Your task to perform on an android device: uninstall "Google Play Music" Image 0: 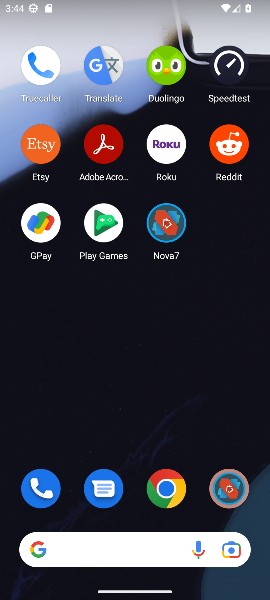
Step 0: drag from (129, 519) to (151, 12)
Your task to perform on an android device: uninstall "Google Play Music" Image 1: 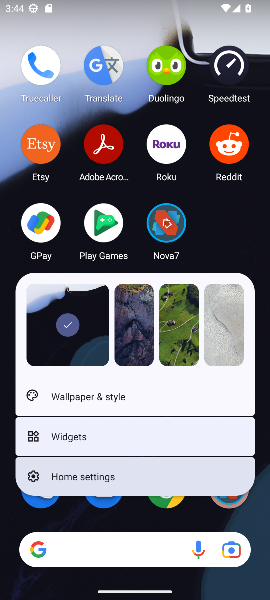
Step 1: click (223, 202)
Your task to perform on an android device: uninstall "Google Play Music" Image 2: 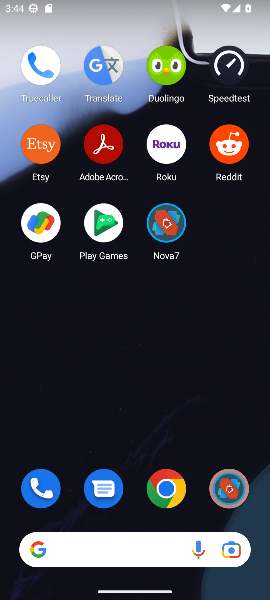
Step 2: drag from (140, 517) to (143, 81)
Your task to perform on an android device: uninstall "Google Play Music" Image 3: 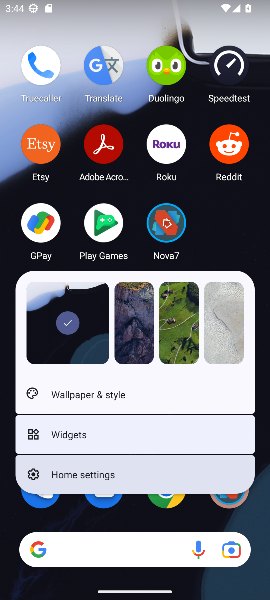
Step 3: click (212, 208)
Your task to perform on an android device: uninstall "Google Play Music" Image 4: 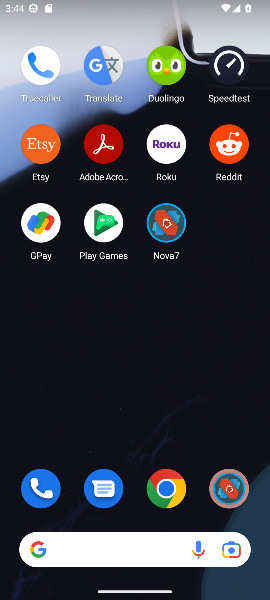
Step 4: drag from (134, 510) to (163, 47)
Your task to perform on an android device: uninstall "Google Play Music" Image 5: 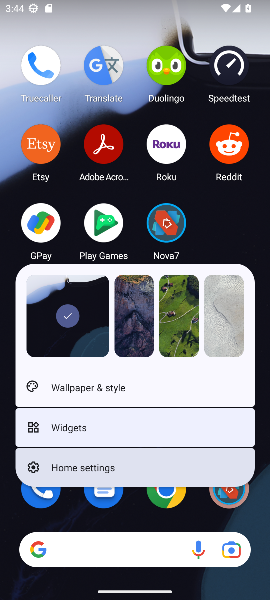
Step 5: click (212, 215)
Your task to perform on an android device: uninstall "Google Play Music" Image 6: 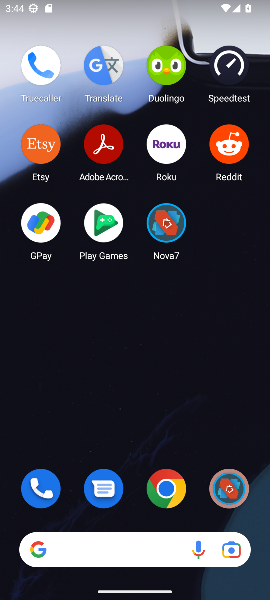
Step 6: drag from (145, 526) to (168, 140)
Your task to perform on an android device: uninstall "Google Play Music" Image 7: 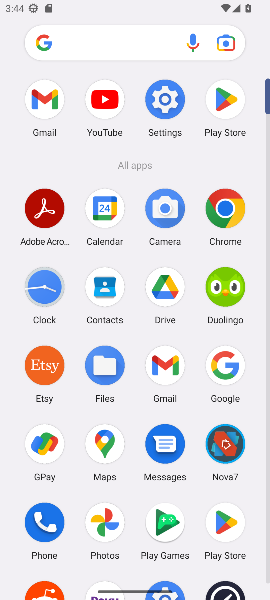
Step 7: click (222, 124)
Your task to perform on an android device: uninstall "Google Play Music" Image 8: 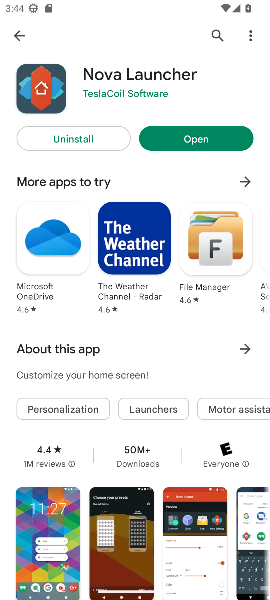
Step 8: click (203, 141)
Your task to perform on an android device: uninstall "Google Play Music" Image 9: 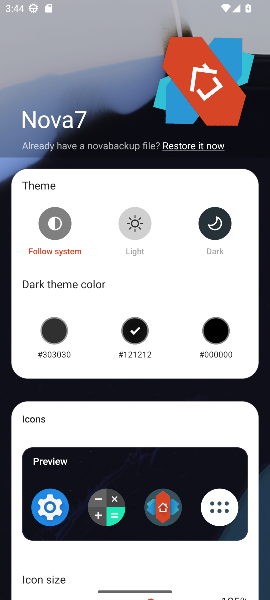
Step 9: press home button
Your task to perform on an android device: uninstall "Google Play Music" Image 10: 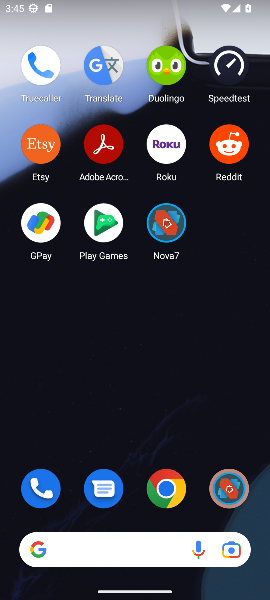
Step 10: drag from (142, 385) to (148, 150)
Your task to perform on an android device: uninstall "Google Play Music" Image 11: 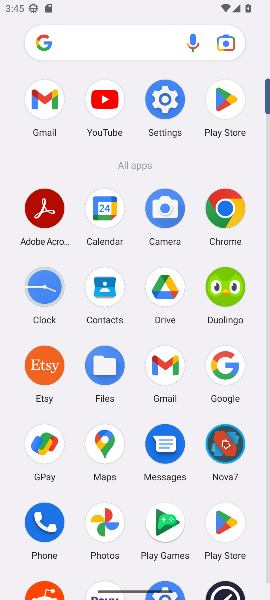
Step 11: click (223, 107)
Your task to perform on an android device: uninstall "Google Play Music" Image 12: 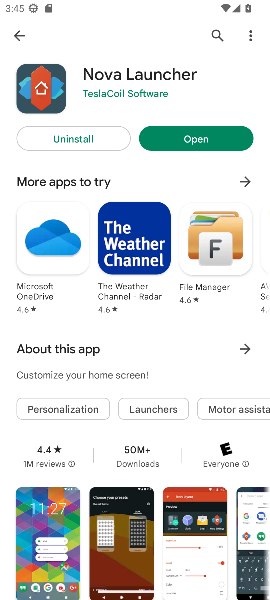
Step 12: task complete